Your task to perform on an android device: Go to location settings Image 0: 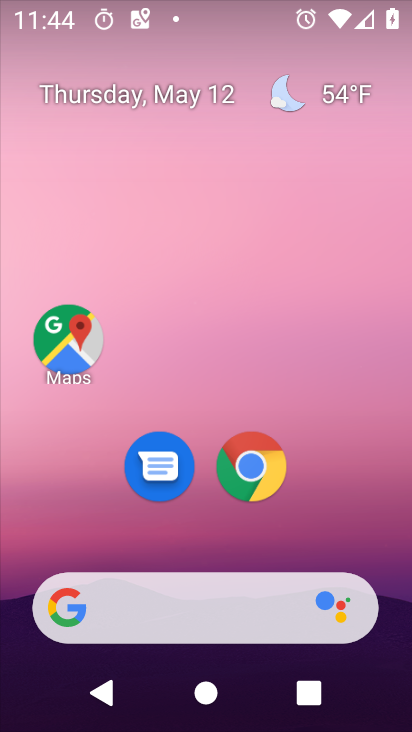
Step 0: drag from (376, 496) to (333, 155)
Your task to perform on an android device: Go to location settings Image 1: 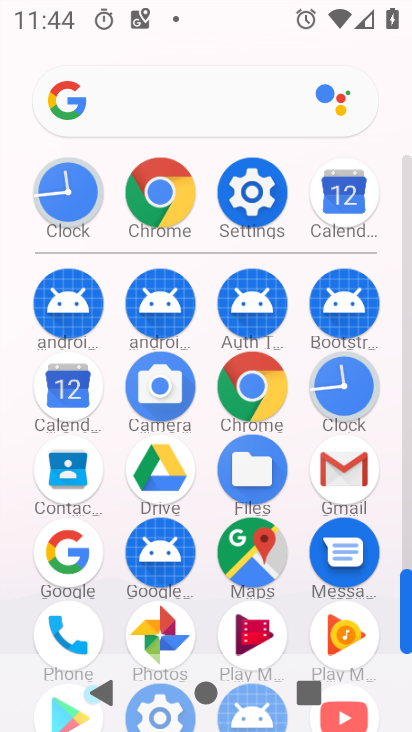
Step 1: click (249, 207)
Your task to perform on an android device: Go to location settings Image 2: 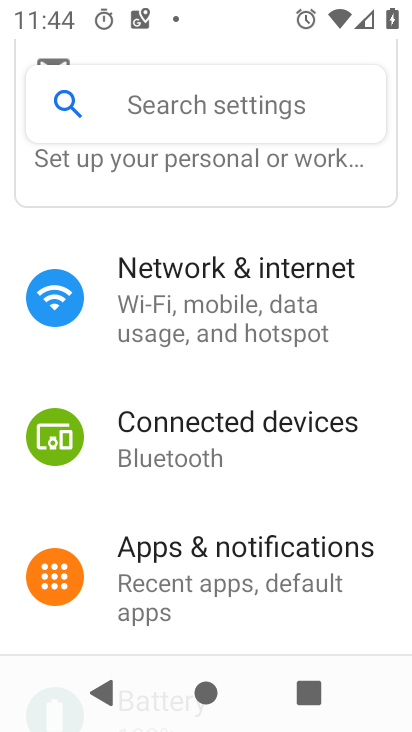
Step 2: drag from (253, 578) to (226, 254)
Your task to perform on an android device: Go to location settings Image 3: 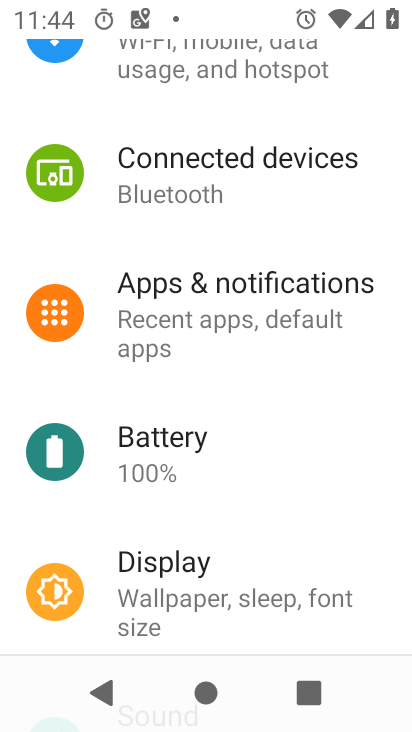
Step 3: drag from (245, 557) to (225, 270)
Your task to perform on an android device: Go to location settings Image 4: 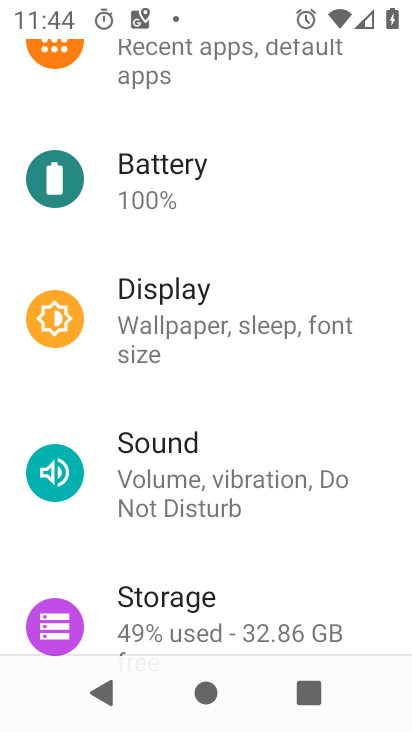
Step 4: drag from (268, 525) to (269, 194)
Your task to perform on an android device: Go to location settings Image 5: 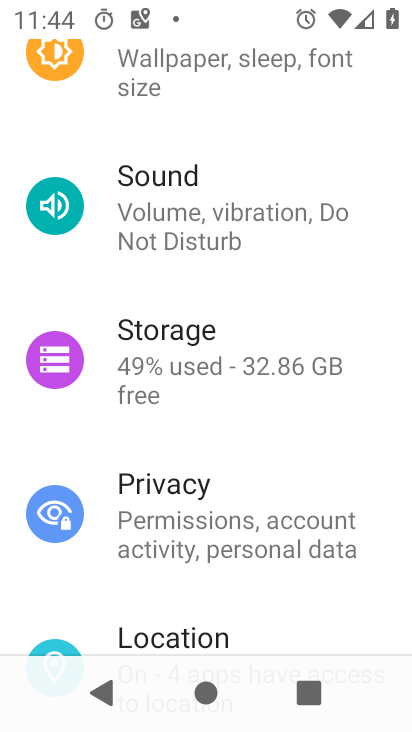
Step 5: drag from (251, 605) to (253, 242)
Your task to perform on an android device: Go to location settings Image 6: 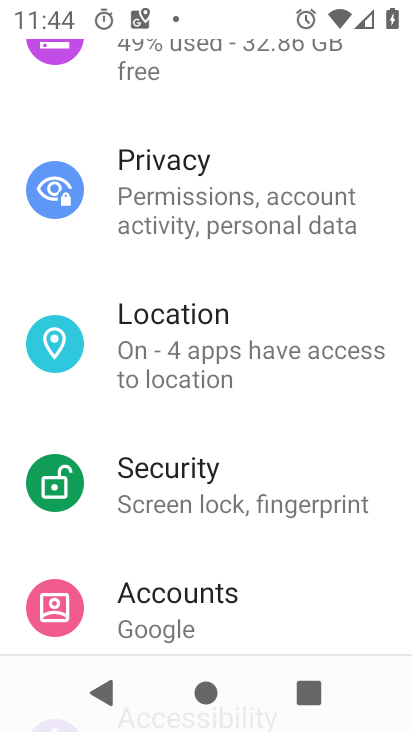
Step 6: click (233, 336)
Your task to perform on an android device: Go to location settings Image 7: 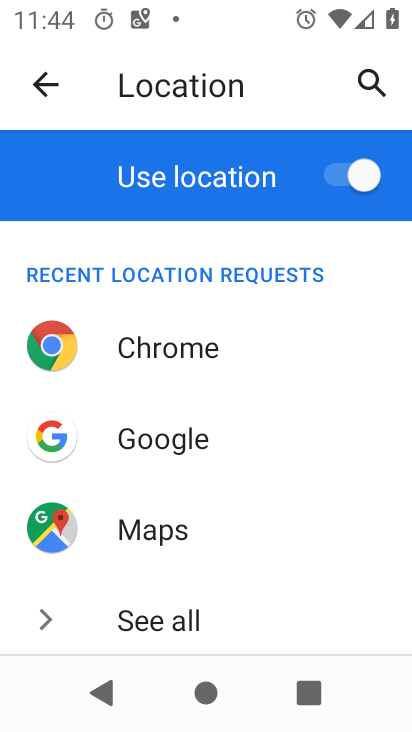
Step 7: task complete